Your task to perform on an android device: turn on improve location accuracy Image 0: 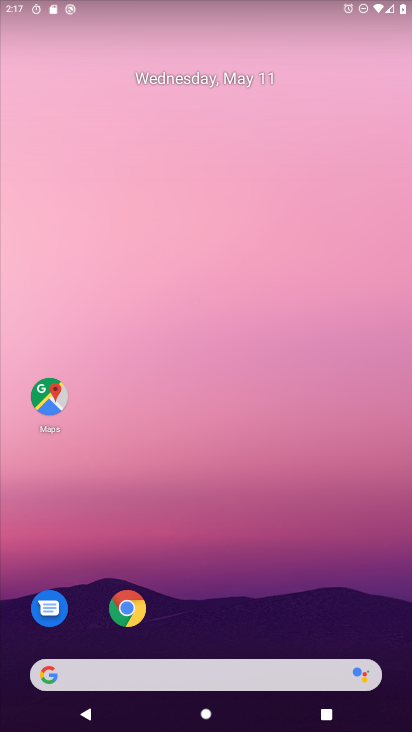
Step 0: drag from (233, 514) to (314, 2)
Your task to perform on an android device: turn on improve location accuracy Image 1: 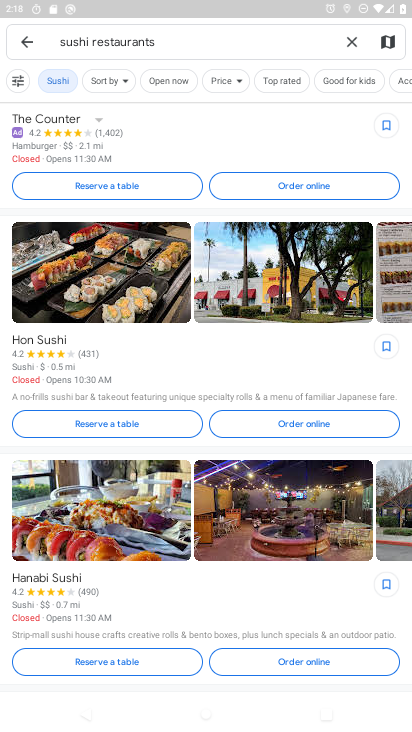
Step 1: press home button
Your task to perform on an android device: turn on improve location accuracy Image 2: 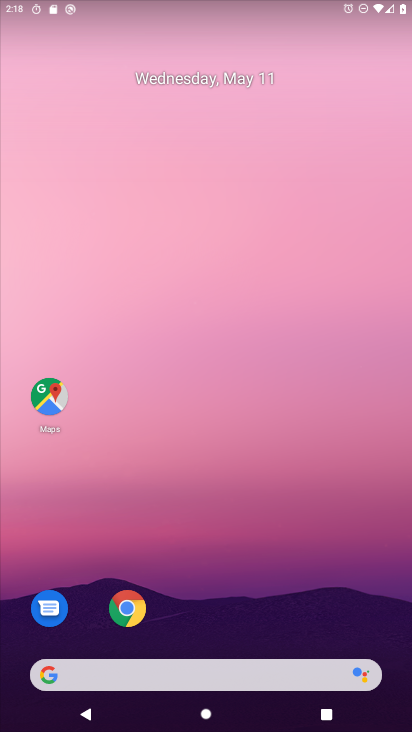
Step 2: drag from (282, 514) to (290, 58)
Your task to perform on an android device: turn on improve location accuracy Image 3: 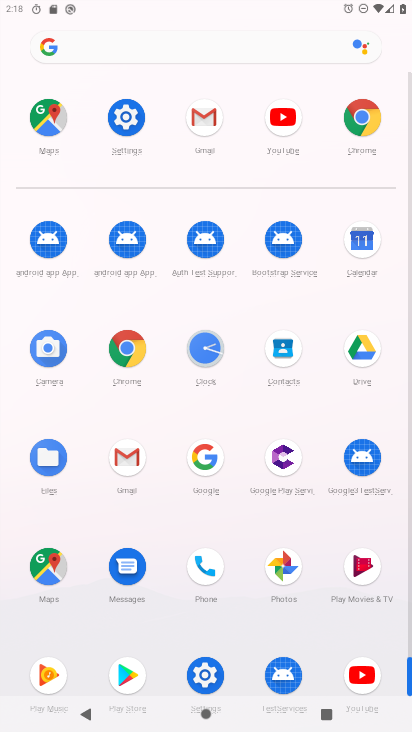
Step 3: click (129, 139)
Your task to perform on an android device: turn on improve location accuracy Image 4: 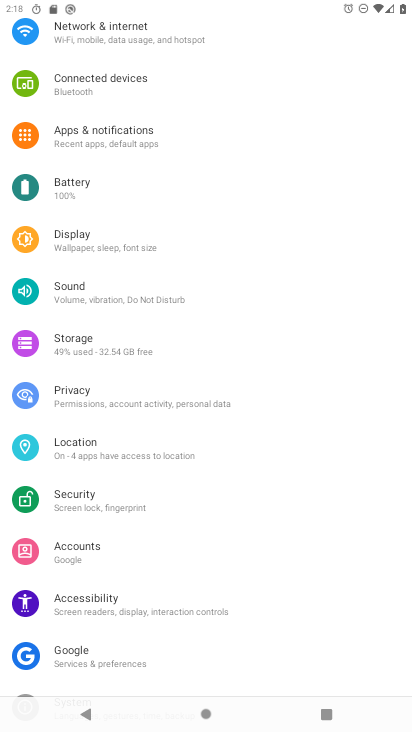
Step 4: click (121, 459)
Your task to perform on an android device: turn on improve location accuracy Image 5: 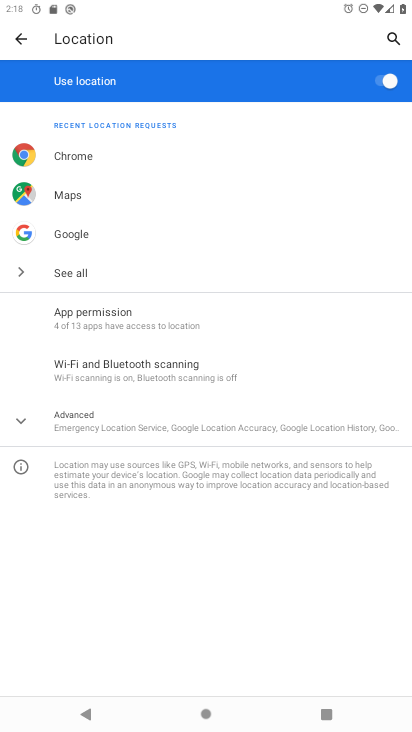
Step 5: click (126, 425)
Your task to perform on an android device: turn on improve location accuracy Image 6: 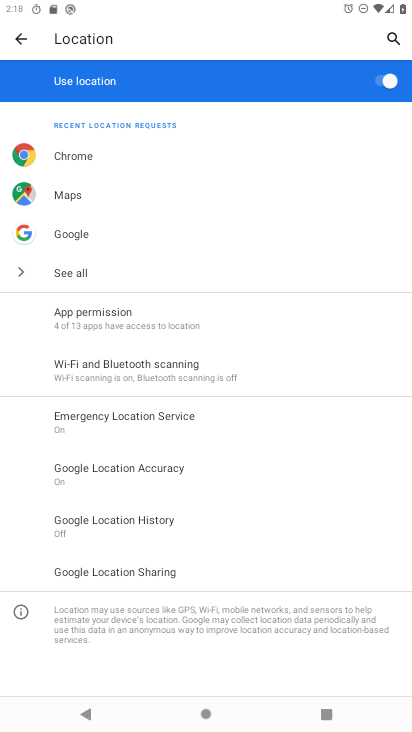
Step 6: click (158, 481)
Your task to perform on an android device: turn on improve location accuracy Image 7: 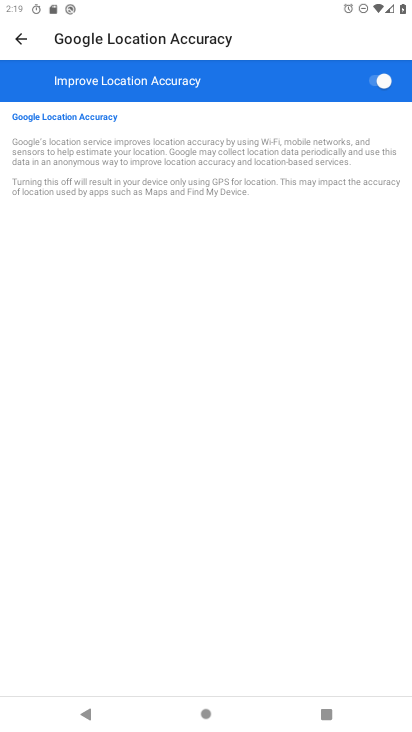
Step 7: task complete